Your task to perform on an android device: refresh tabs in the chrome app Image 0: 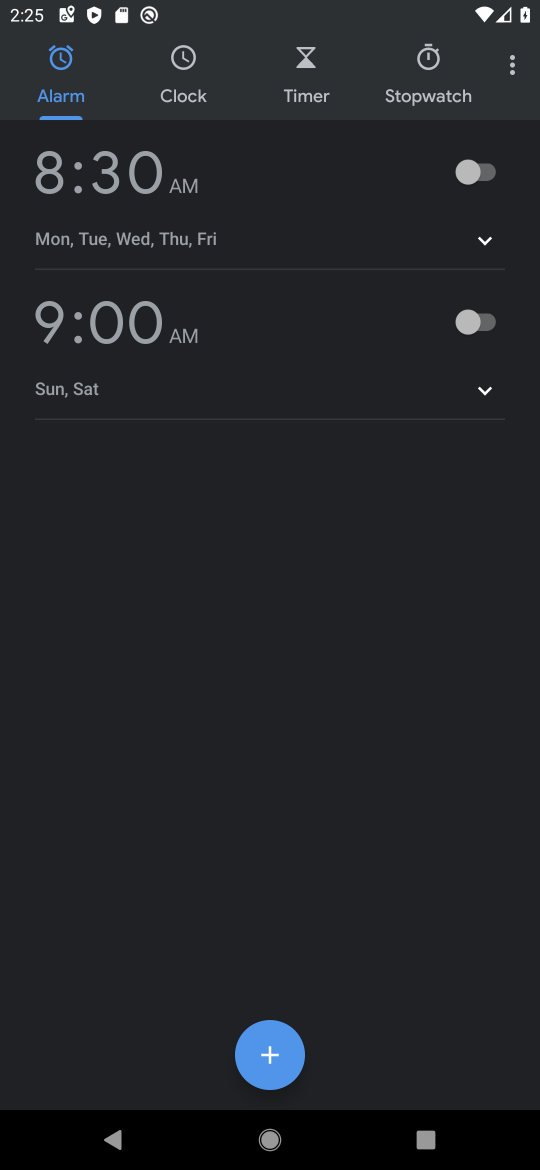
Step 0: press home button
Your task to perform on an android device: refresh tabs in the chrome app Image 1: 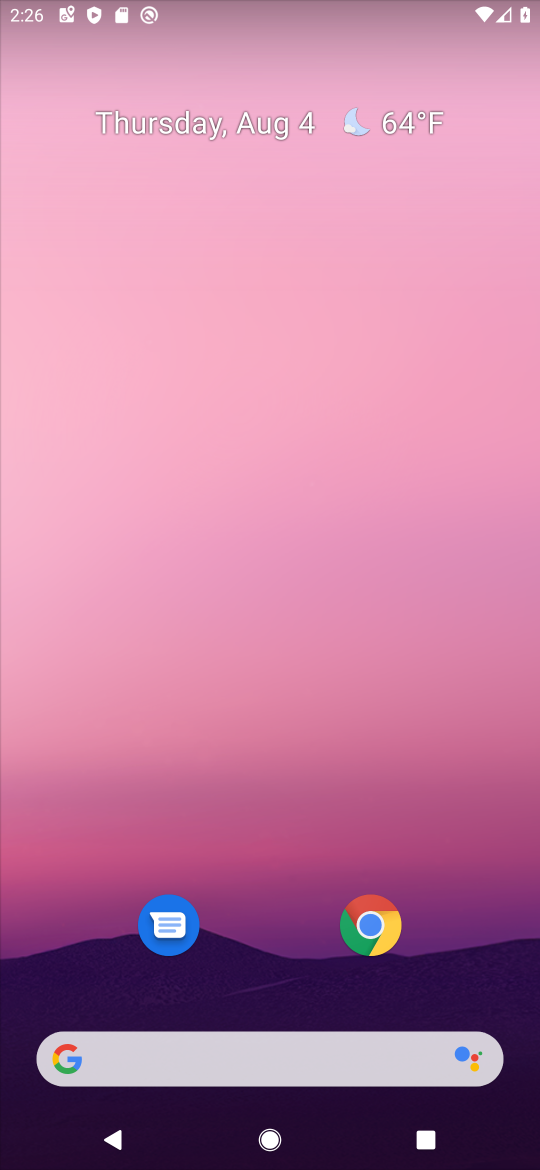
Step 1: click (382, 918)
Your task to perform on an android device: refresh tabs in the chrome app Image 2: 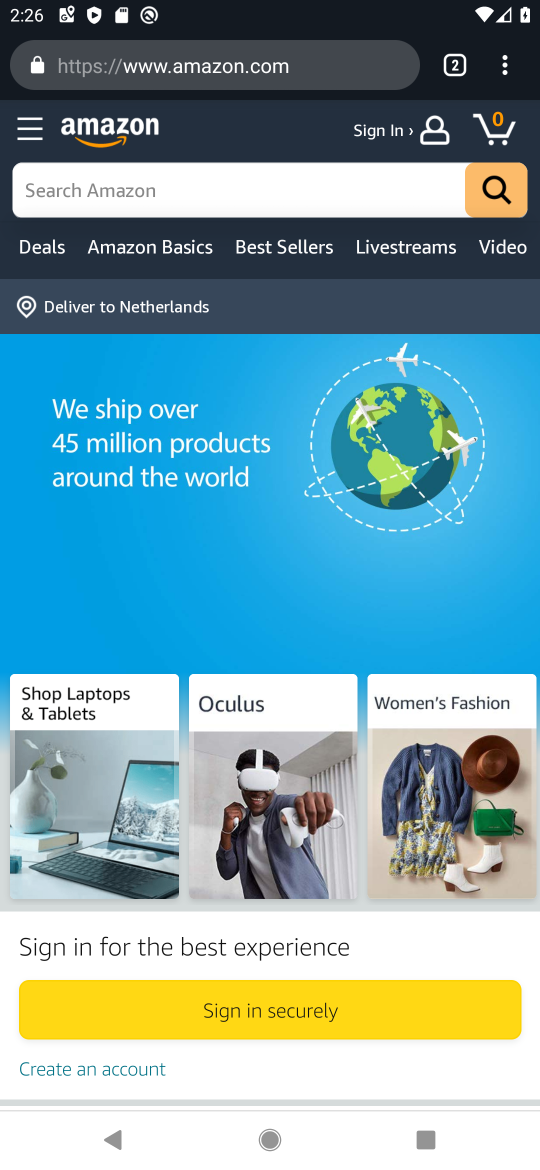
Step 2: click (505, 73)
Your task to perform on an android device: refresh tabs in the chrome app Image 3: 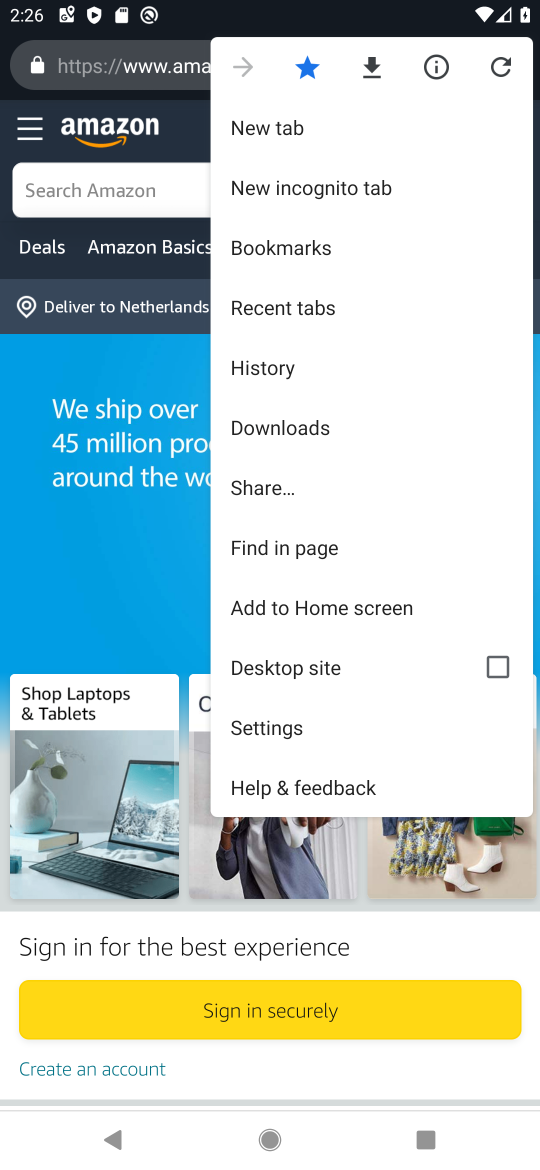
Step 3: click (500, 67)
Your task to perform on an android device: refresh tabs in the chrome app Image 4: 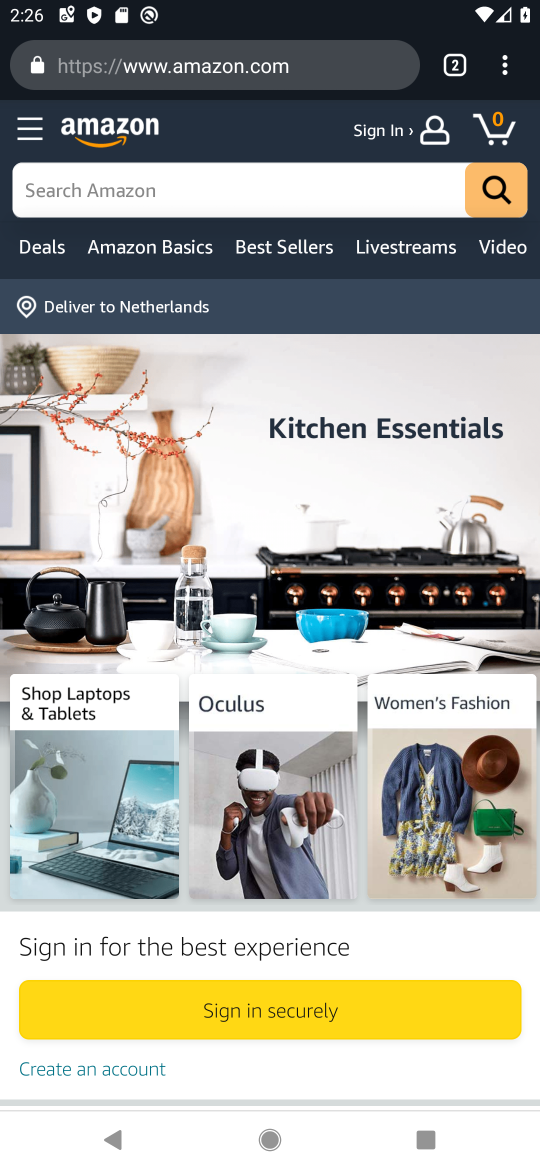
Step 4: task complete